Your task to perform on an android device: Go to wifi settings Image 0: 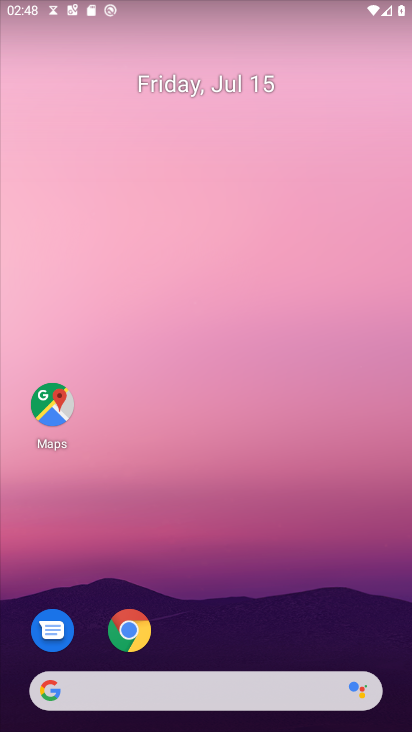
Step 0: drag from (289, 622) to (392, 57)
Your task to perform on an android device: Go to wifi settings Image 1: 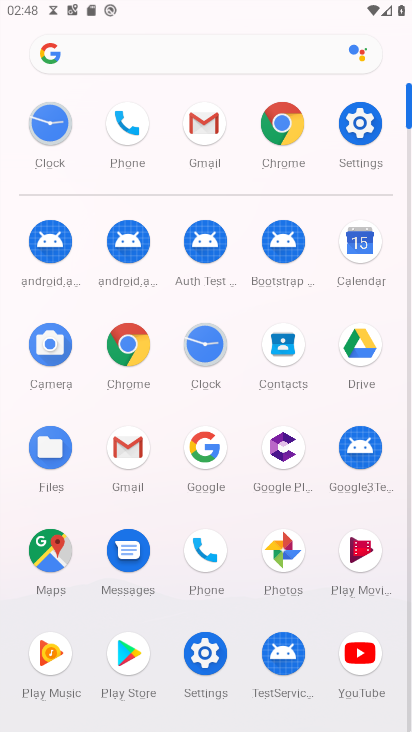
Step 1: click (357, 129)
Your task to perform on an android device: Go to wifi settings Image 2: 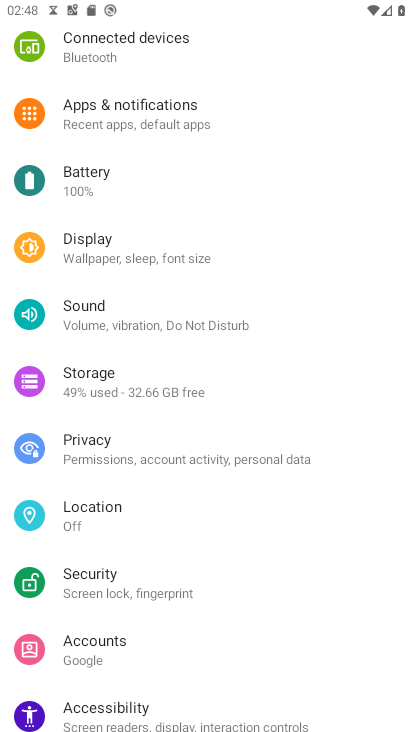
Step 2: drag from (181, 145) to (195, 581)
Your task to perform on an android device: Go to wifi settings Image 3: 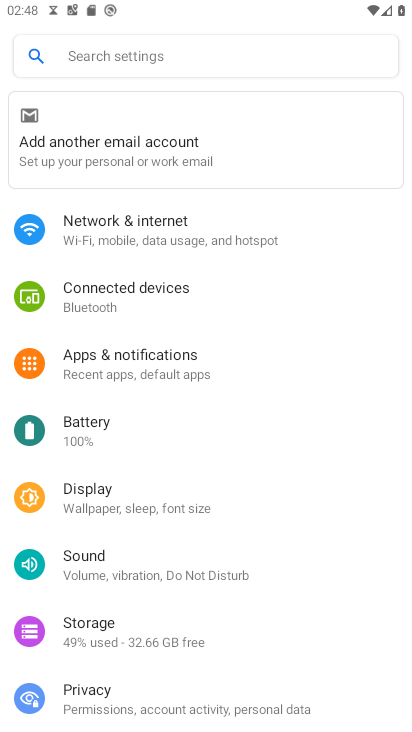
Step 3: click (116, 223)
Your task to perform on an android device: Go to wifi settings Image 4: 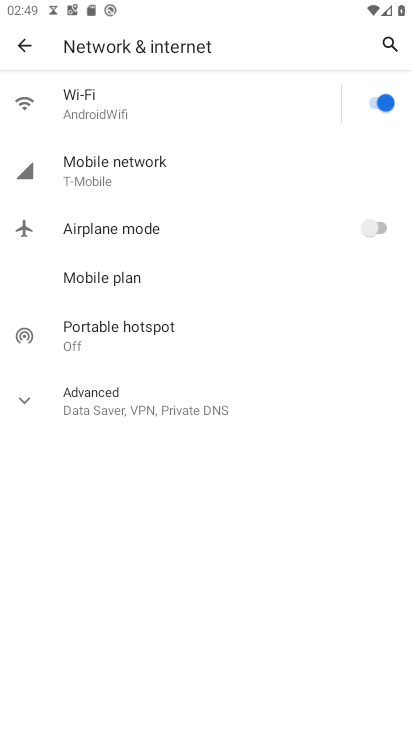
Step 4: click (100, 103)
Your task to perform on an android device: Go to wifi settings Image 5: 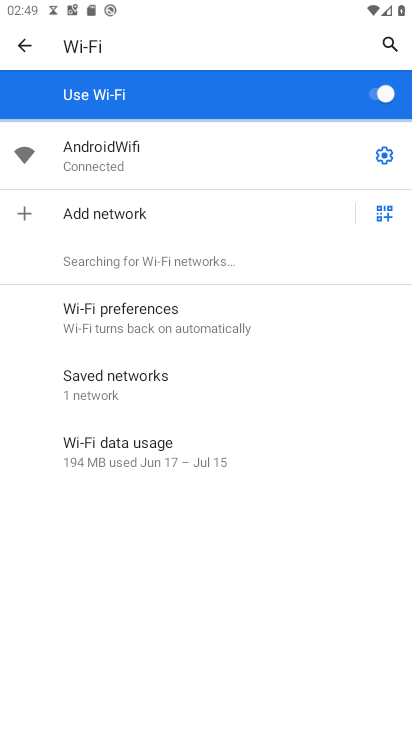
Step 5: task complete